Your task to perform on an android device: Go to wifi settings Image 0: 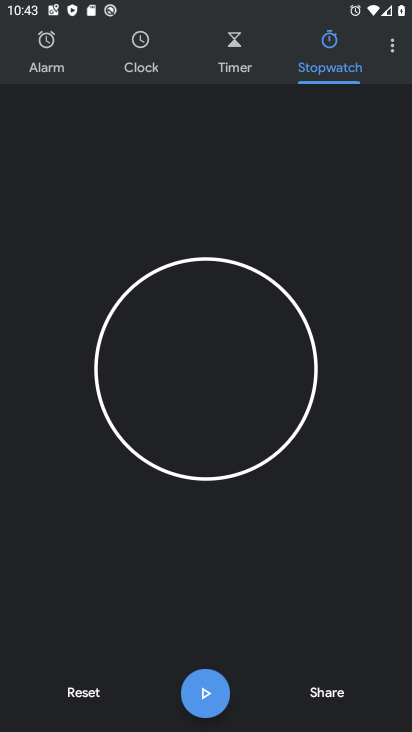
Step 0: press home button
Your task to perform on an android device: Go to wifi settings Image 1: 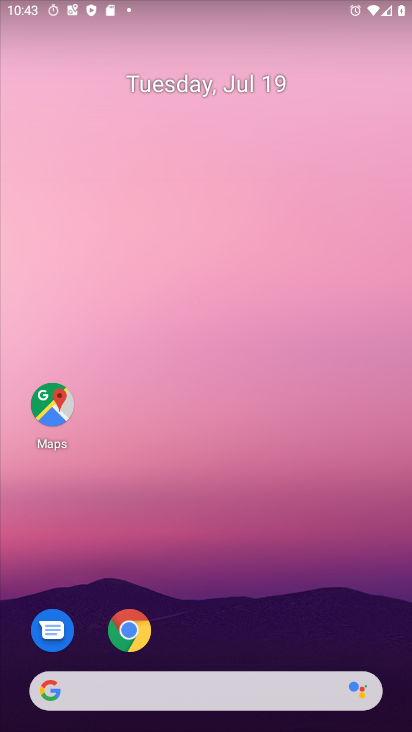
Step 1: click (409, 544)
Your task to perform on an android device: Go to wifi settings Image 2: 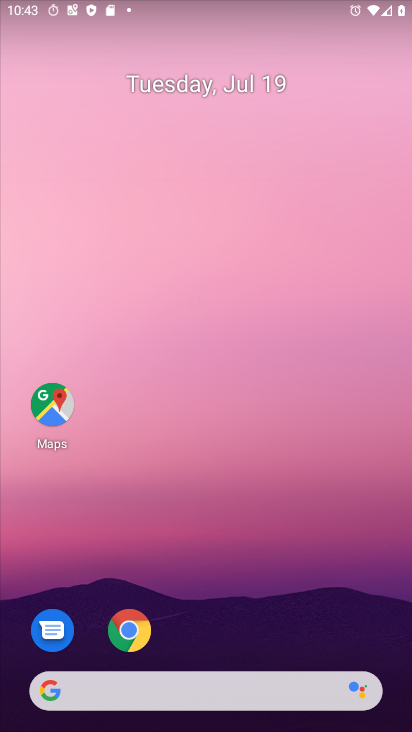
Step 2: drag from (318, 608) to (301, 77)
Your task to perform on an android device: Go to wifi settings Image 3: 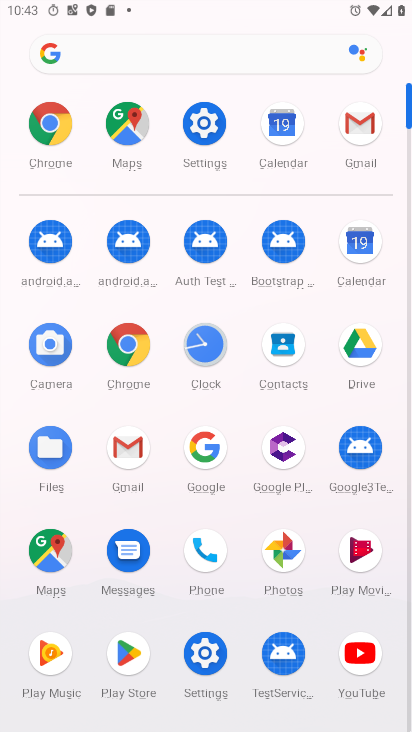
Step 3: click (206, 124)
Your task to perform on an android device: Go to wifi settings Image 4: 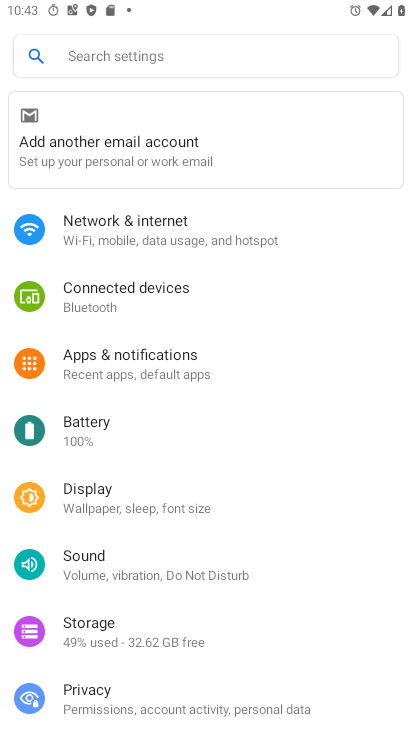
Step 4: click (163, 232)
Your task to perform on an android device: Go to wifi settings Image 5: 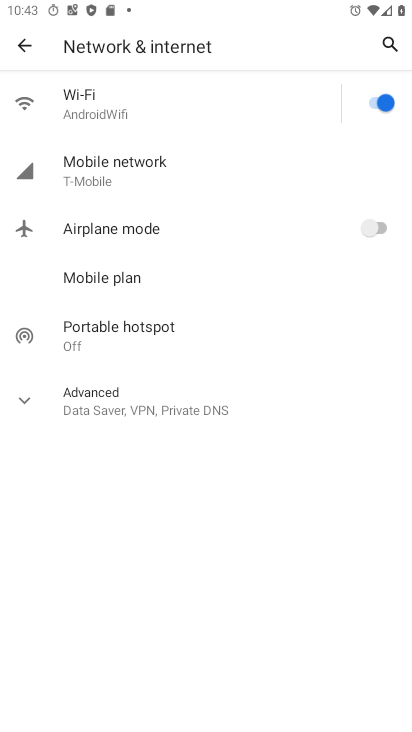
Step 5: click (139, 106)
Your task to perform on an android device: Go to wifi settings Image 6: 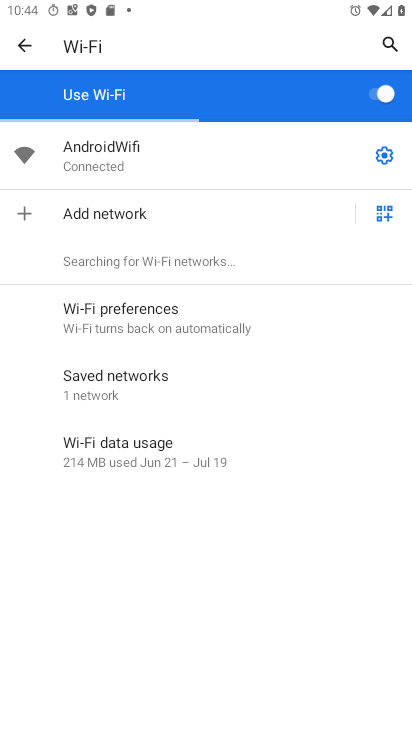
Step 6: task complete